Your task to perform on an android device: all mails in gmail Image 0: 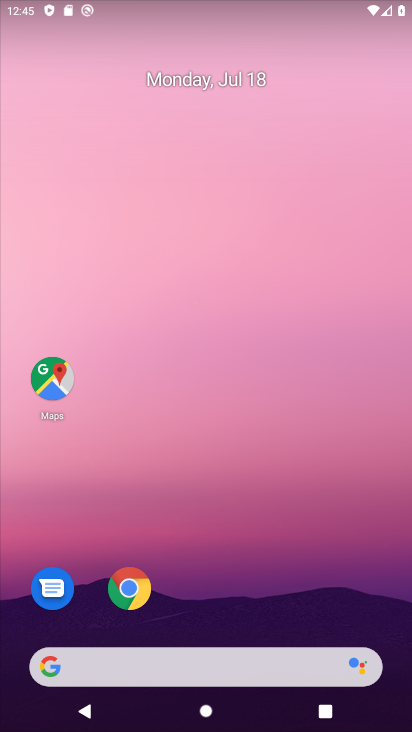
Step 0: drag from (190, 312) to (180, 150)
Your task to perform on an android device: all mails in gmail Image 1: 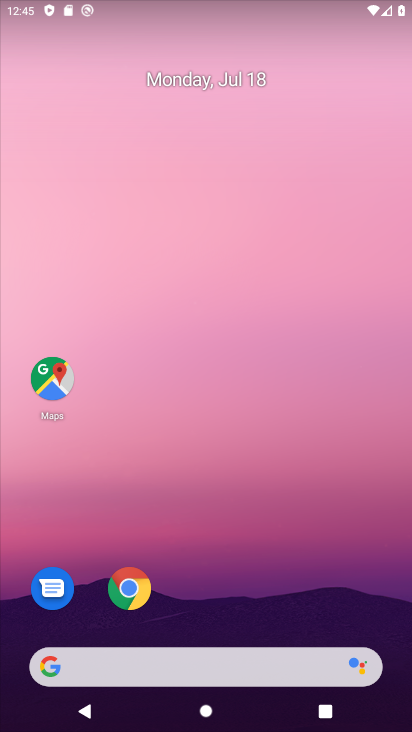
Step 1: drag from (253, 597) to (241, 264)
Your task to perform on an android device: all mails in gmail Image 2: 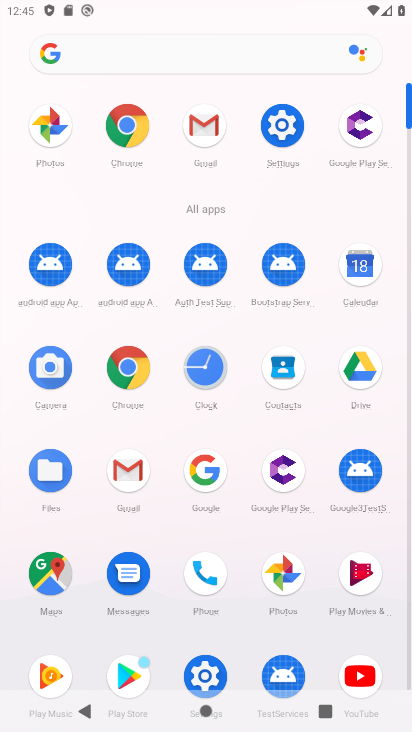
Step 2: drag from (204, 126) to (260, 195)
Your task to perform on an android device: all mails in gmail Image 3: 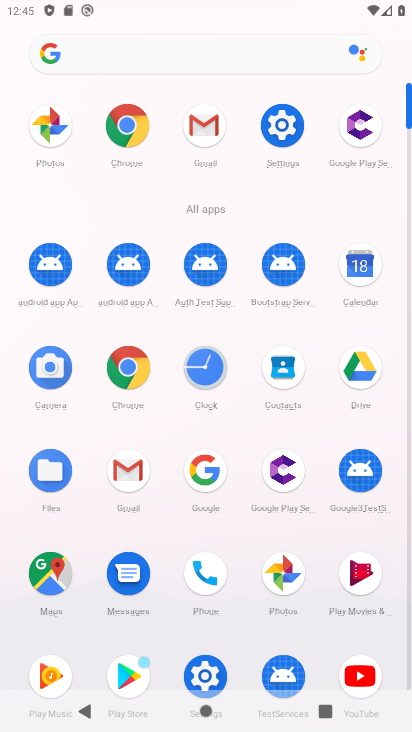
Step 3: click (202, 184)
Your task to perform on an android device: all mails in gmail Image 4: 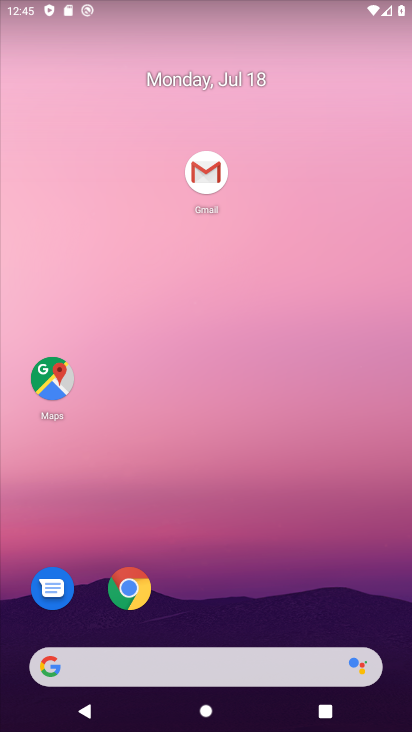
Step 4: drag from (209, 174) to (157, 425)
Your task to perform on an android device: all mails in gmail Image 5: 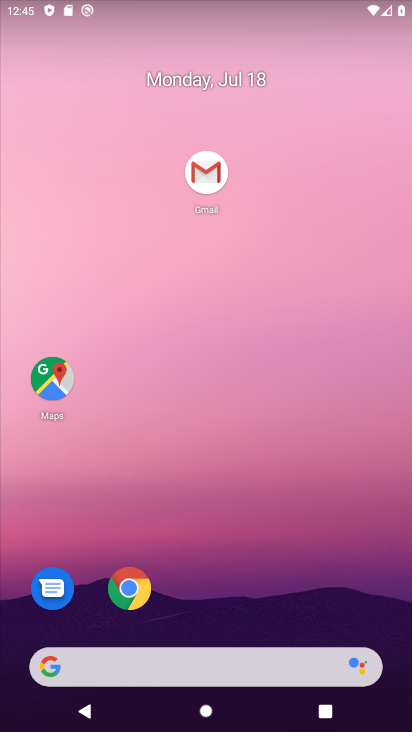
Step 5: click (207, 178)
Your task to perform on an android device: all mails in gmail Image 6: 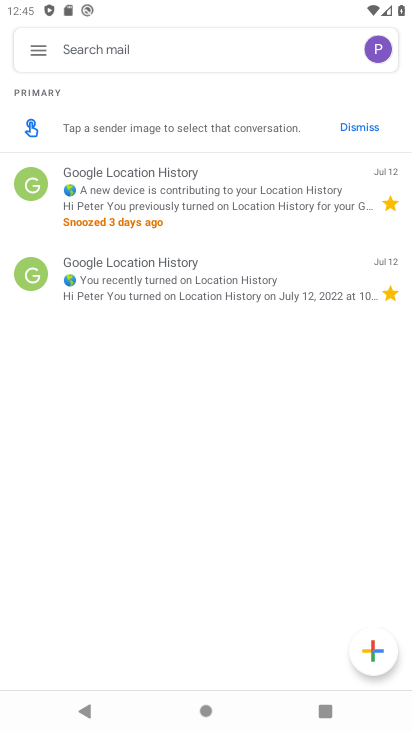
Step 6: click (39, 36)
Your task to perform on an android device: all mails in gmail Image 7: 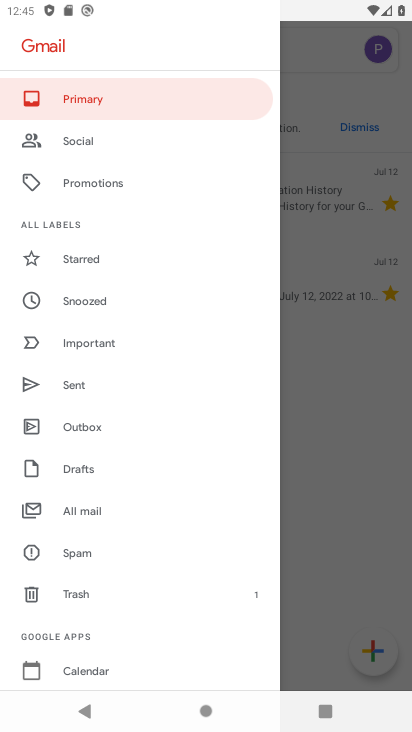
Step 7: click (85, 514)
Your task to perform on an android device: all mails in gmail Image 8: 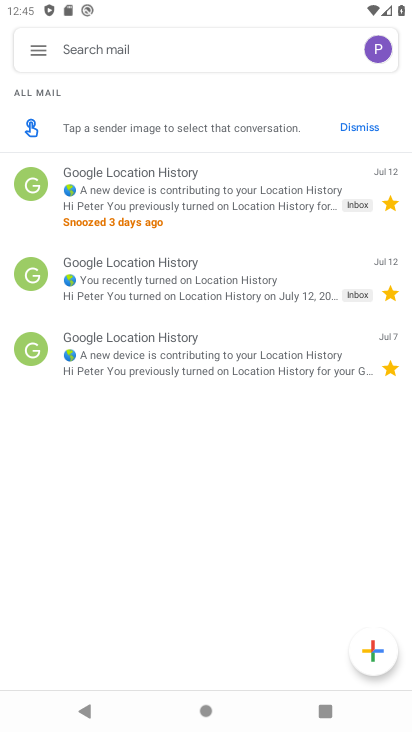
Step 8: task complete